Your task to perform on an android device: open app "Roku - Official Remote Control" Image 0: 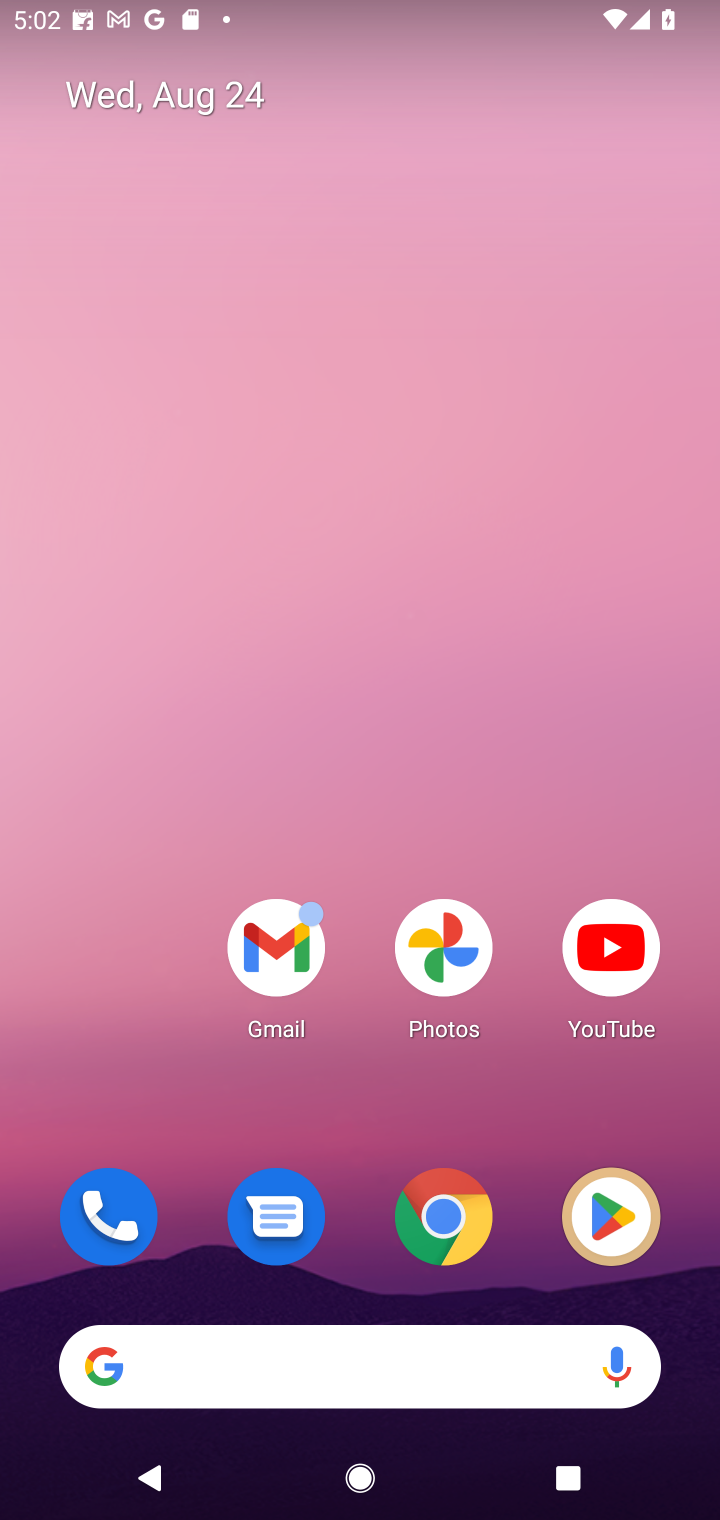
Step 0: click (586, 1244)
Your task to perform on an android device: open app "Roku - Official Remote Control" Image 1: 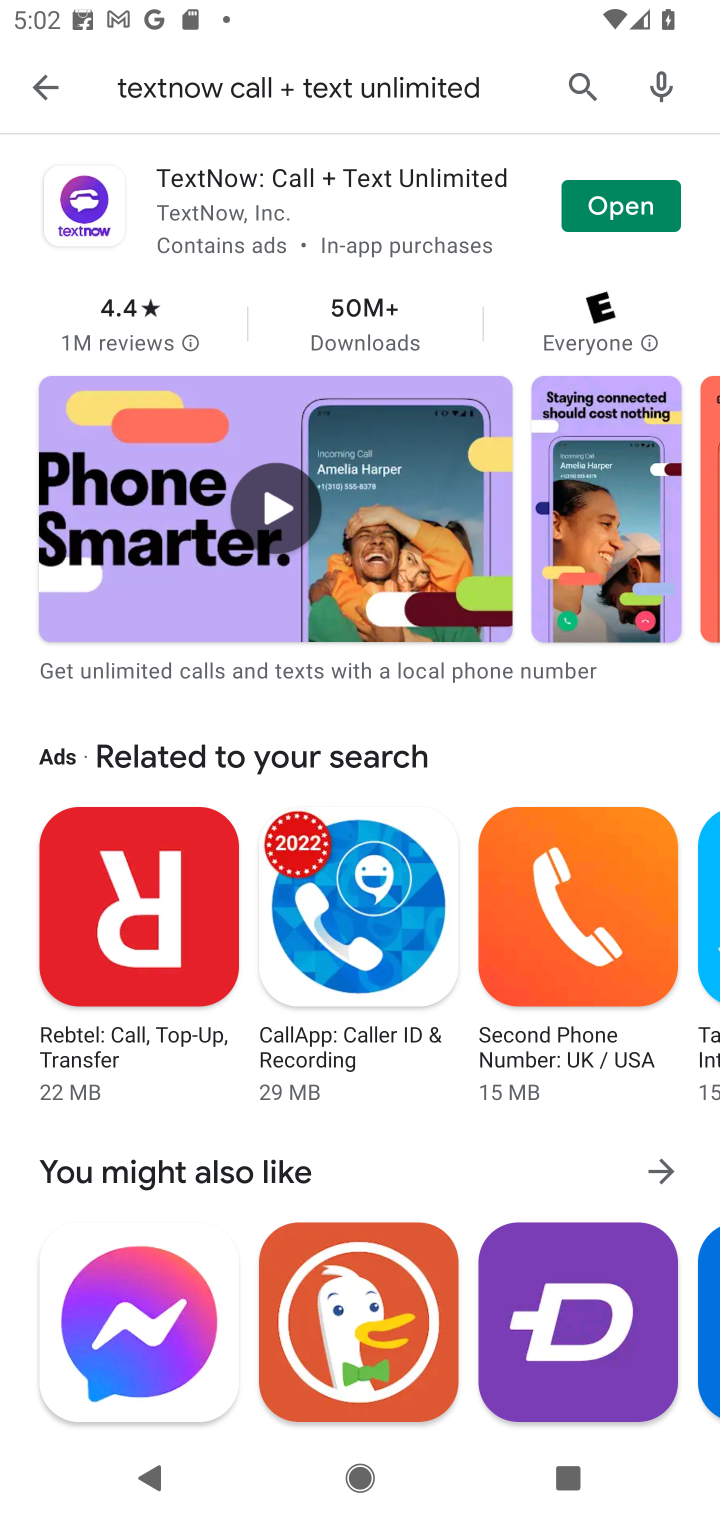
Step 1: click (568, 79)
Your task to perform on an android device: open app "Roku - Official Remote Control" Image 2: 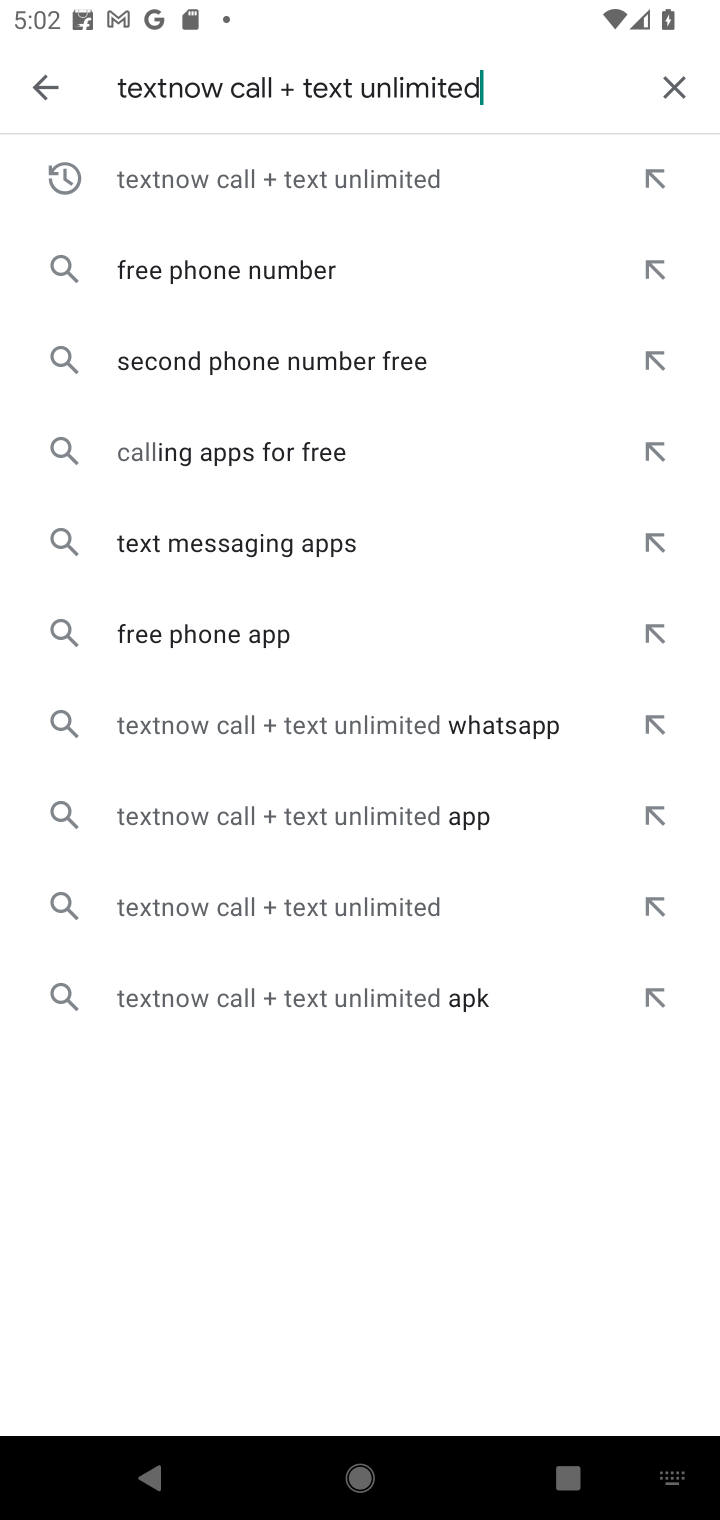
Step 2: click (663, 86)
Your task to perform on an android device: open app "Roku - Official Remote Control" Image 3: 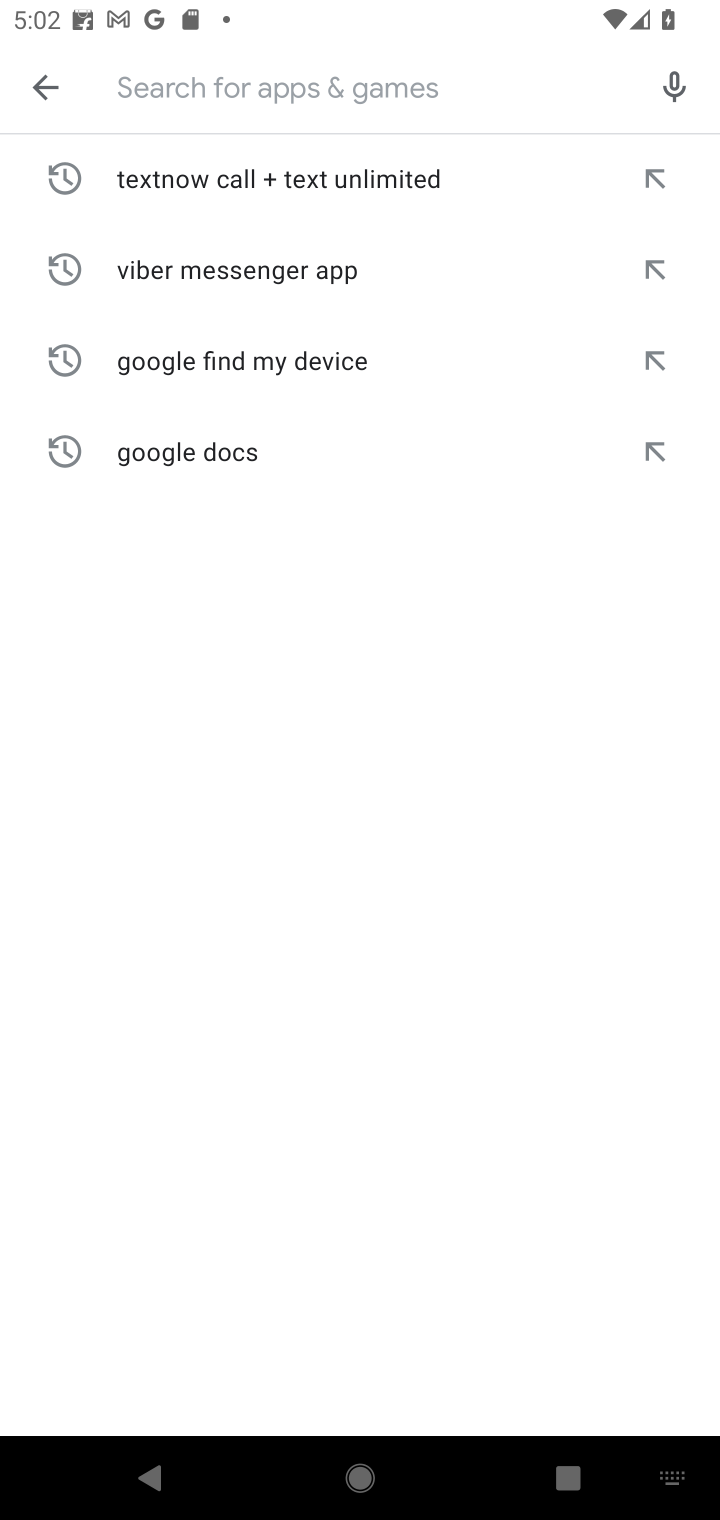
Step 3: press home button
Your task to perform on an android device: open app "Roku - Official Remote Control" Image 4: 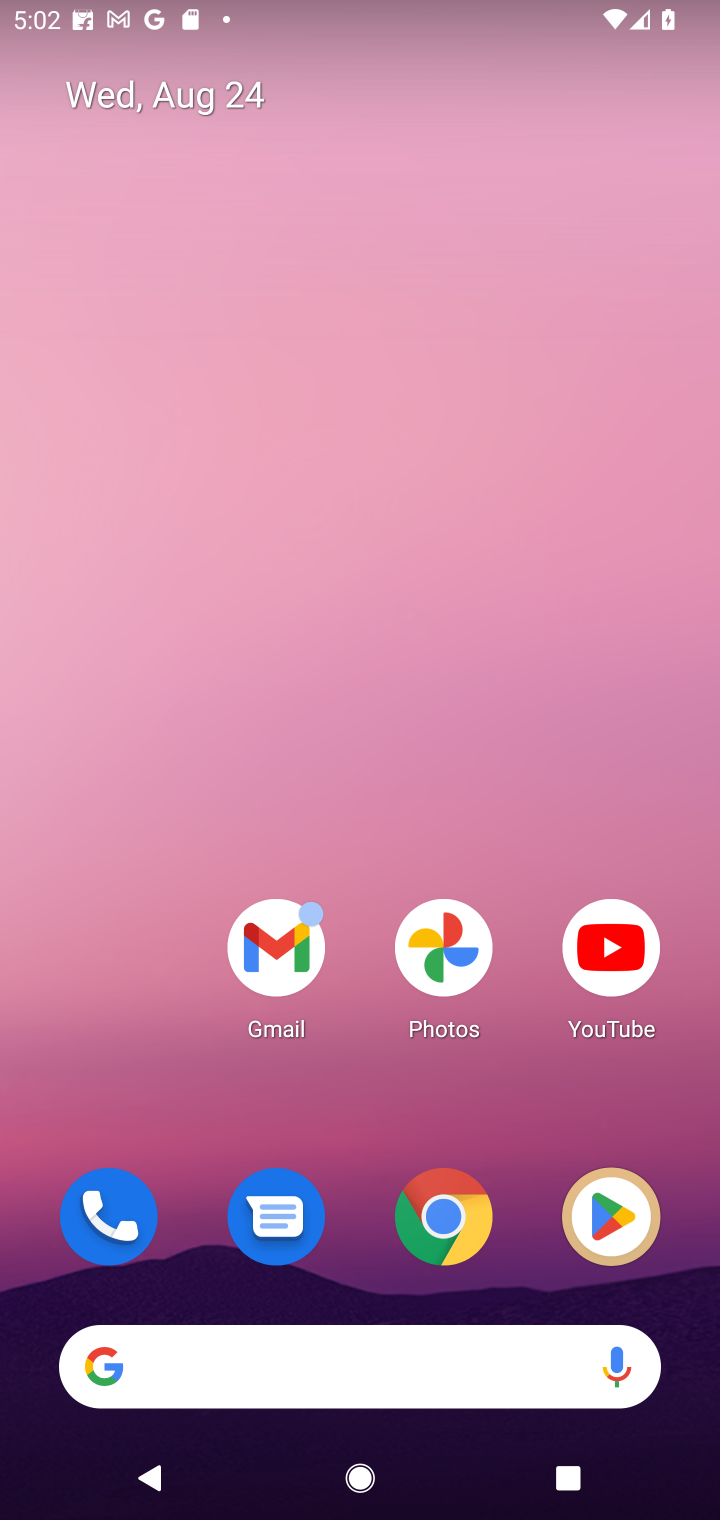
Step 4: click (631, 1218)
Your task to perform on an android device: open app "Roku - Official Remote Control" Image 5: 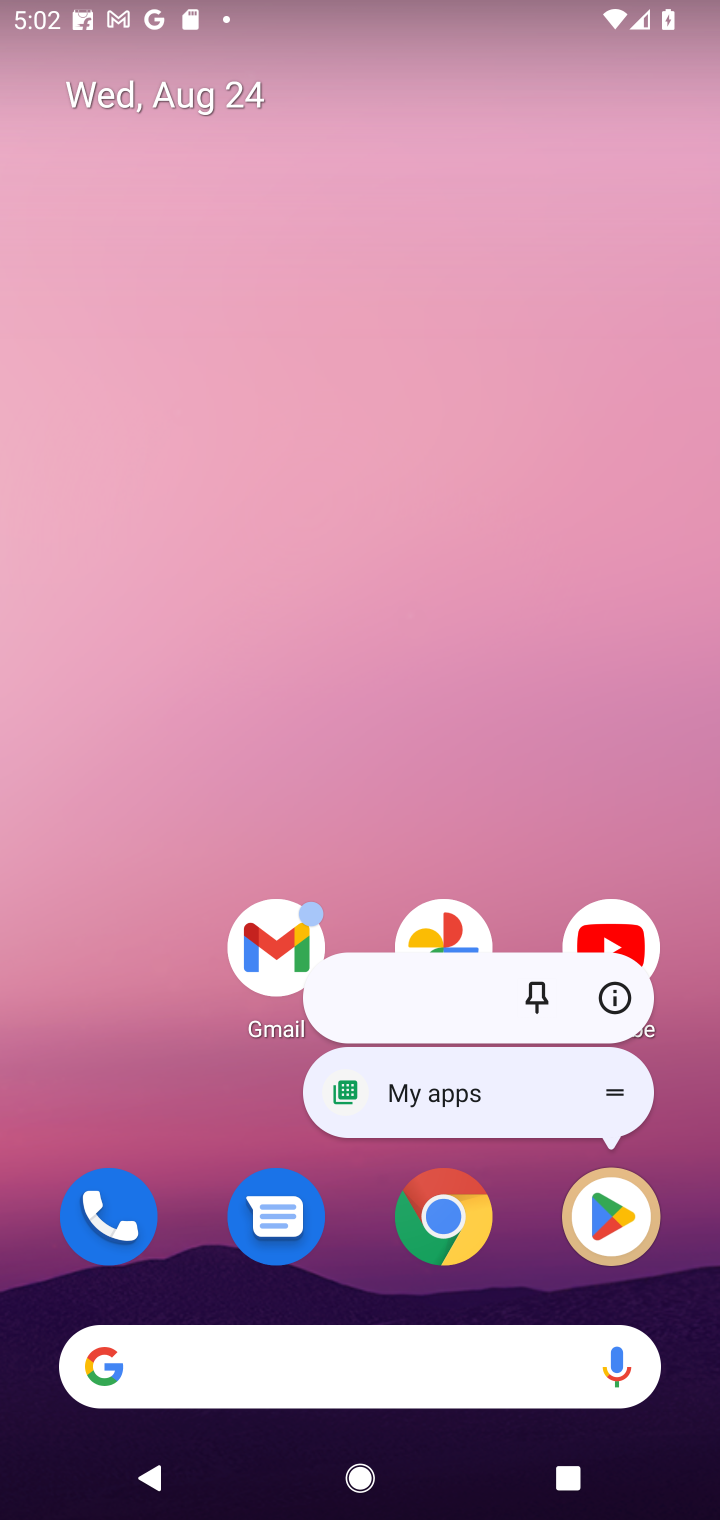
Step 5: click (602, 1218)
Your task to perform on an android device: open app "Roku - Official Remote Control" Image 6: 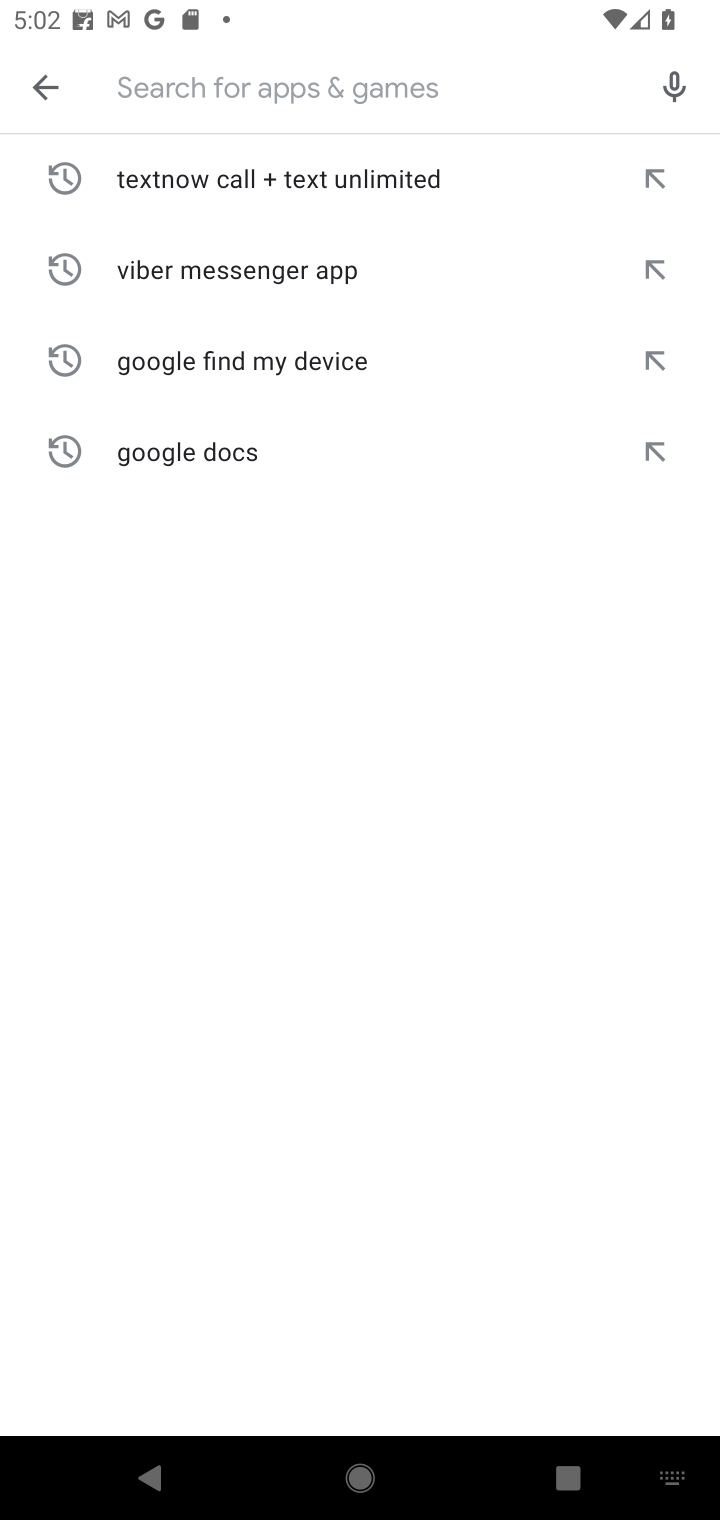
Step 6: type "Roku - Official Remote Contro"
Your task to perform on an android device: open app "Roku - Official Remote Control" Image 7: 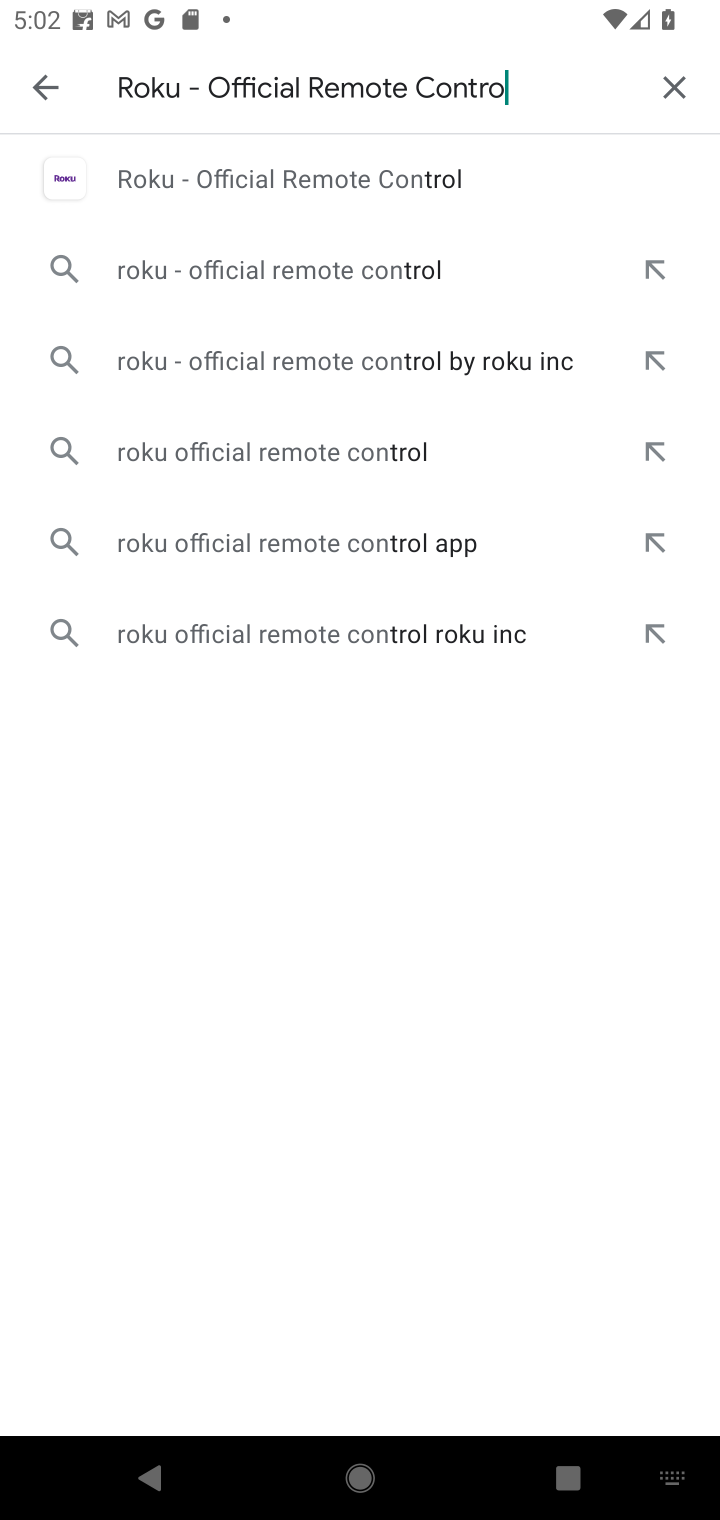
Step 7: type ""
Your task to perform on an android device: open app "Roku - Official Remote Control" Image 8: 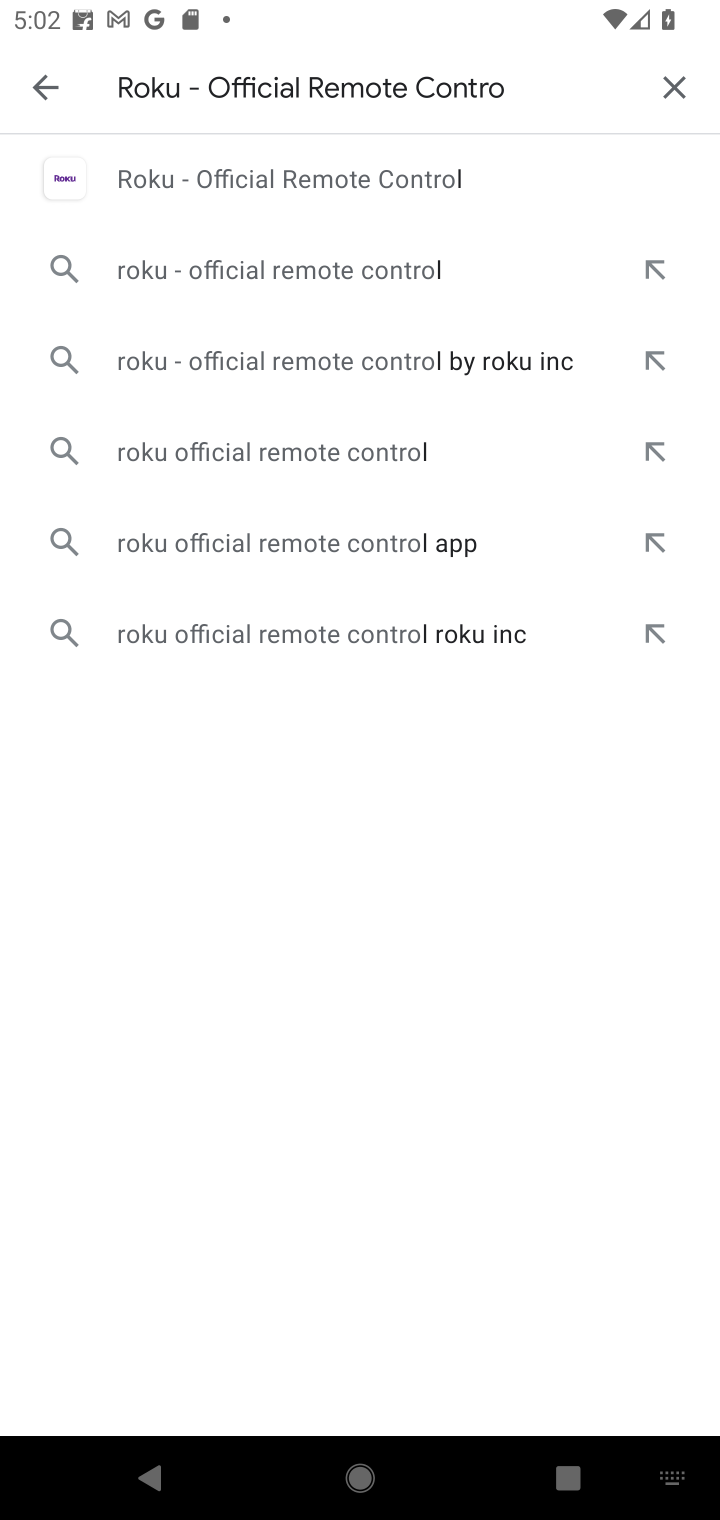
Step 8: click (213, 165)
Your task to perform on an android device: open app "Roku - Official Remote Control" Image 9: 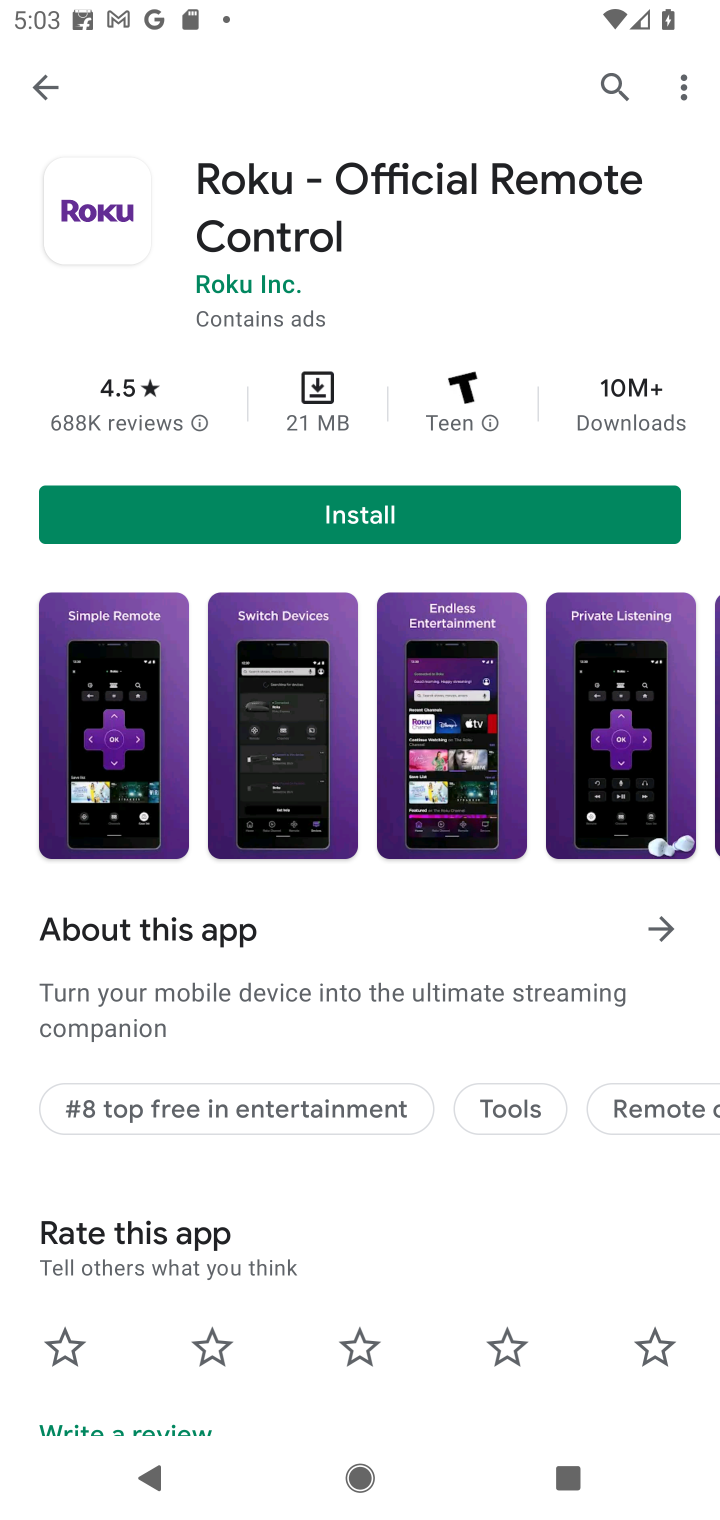
Step 9: task complete